Your task to perform on an android device: Go to ESPN.com Image 0: 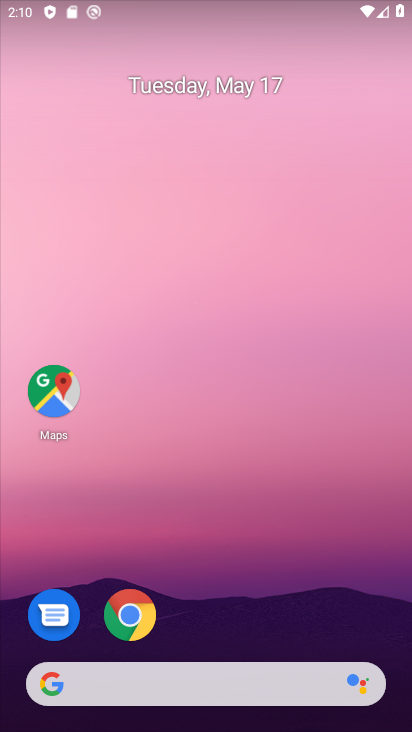
Step 0: click (131, 616)
Your task to perform on an android device: Go to ESPN.com Image 1: 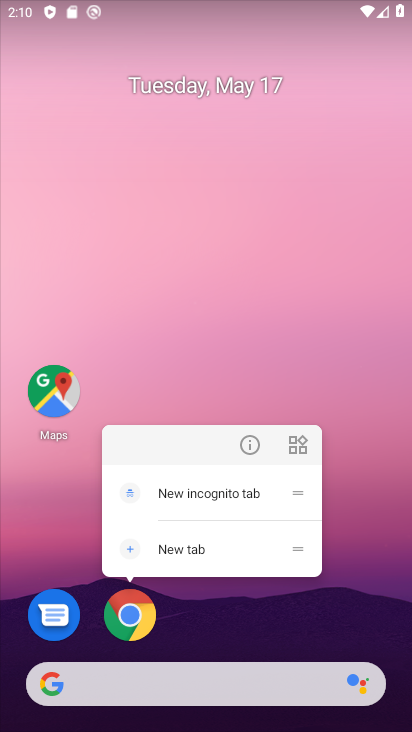
Step 1: click (126, 618)
Your task to perform on an android device: Go to ESPN.com Image 2: 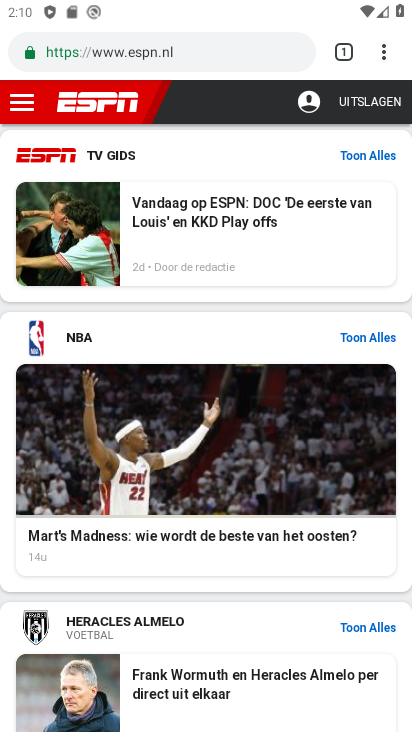
Step 2: task complete